Your task to perform on an android device: read, delete, or share a saved page in the chrome app Image 0: 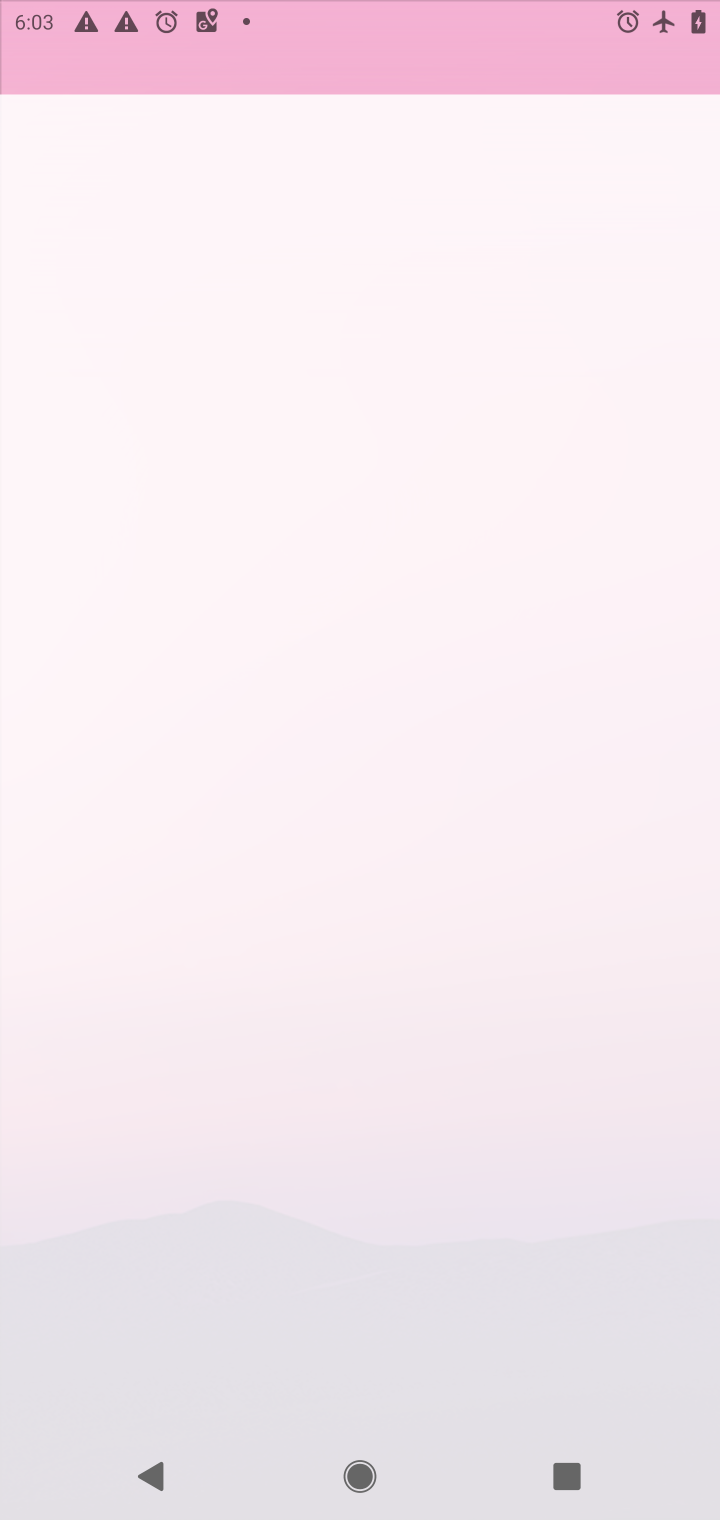
Step 0: press home button
Your task to perform on an android device: read, delete, or share a saved page in the chrome app Image 1: 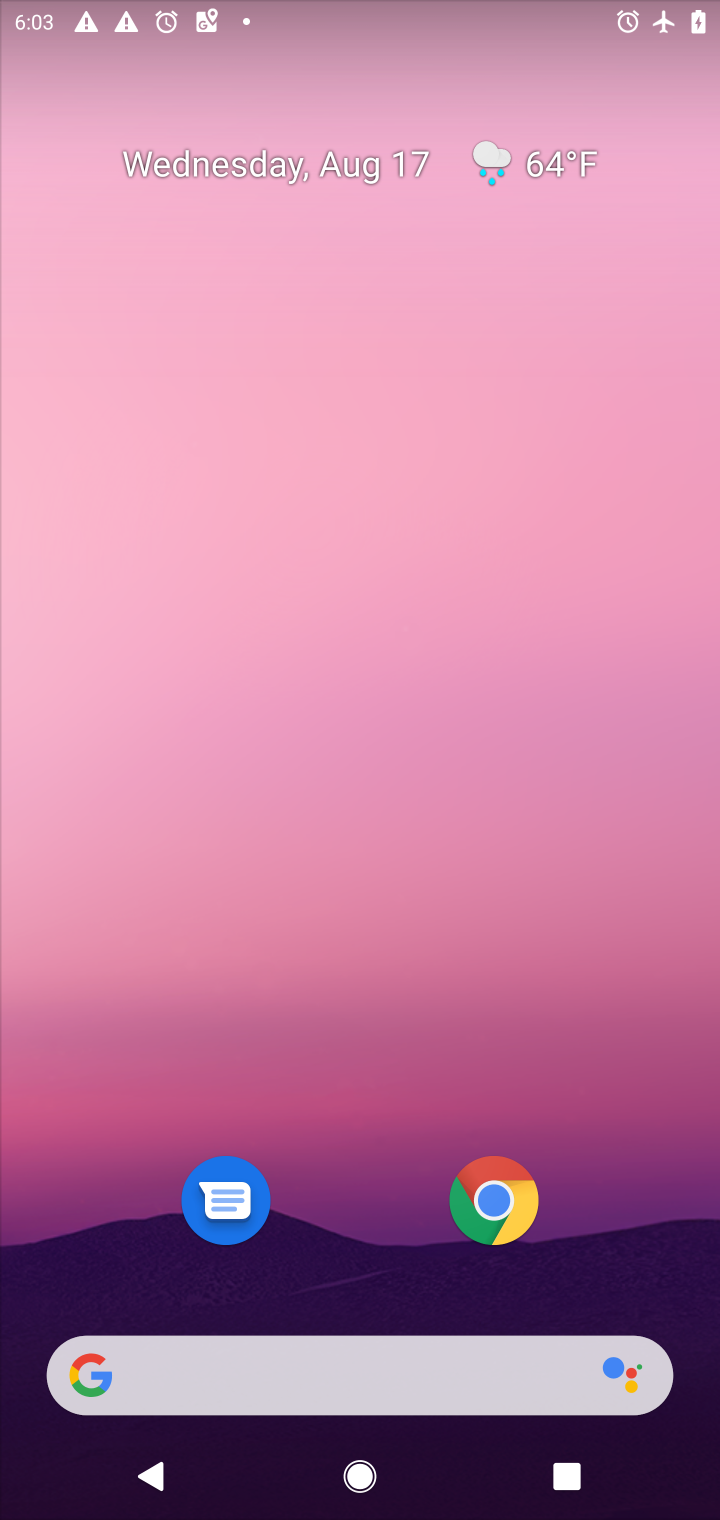
Step 1: drag from (402, 1251) to (380, 204)
Your task to perform on an android device: read, delete, or share a saved page in the chrome app Image 2: 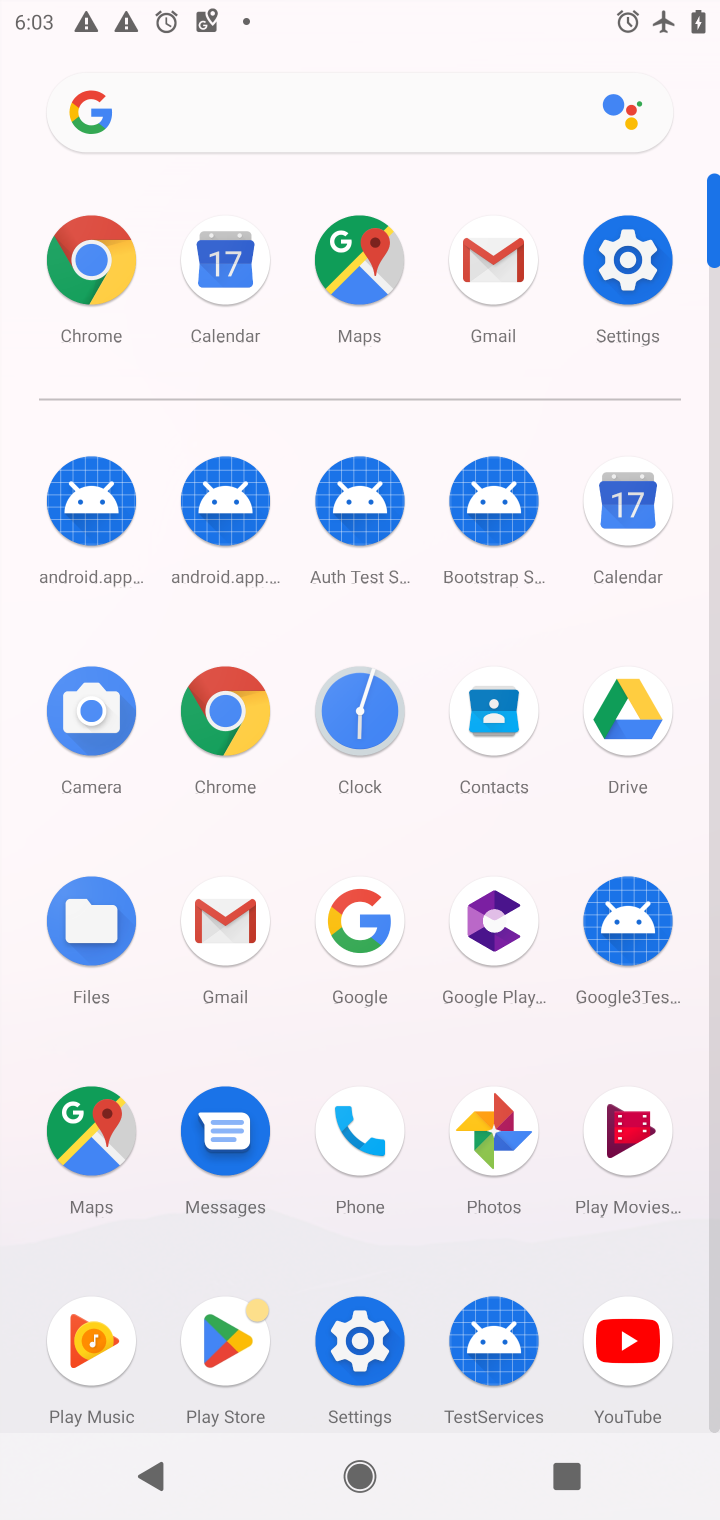
Step 2: click (88, 264)
Your task to perform on an android device: read, delete, or share a saved page in the chrome app Image 3: 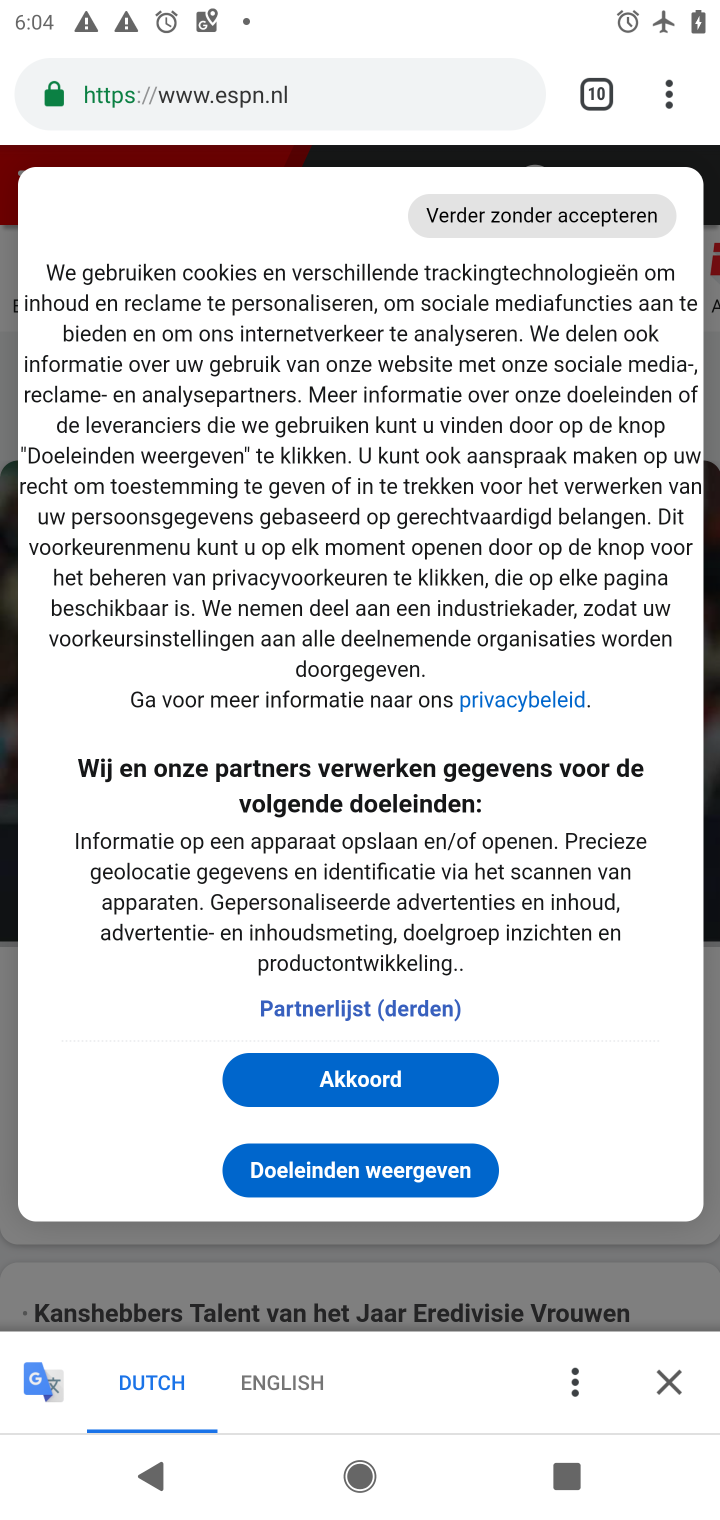
Step 3: drag from (669, 102) to (317, 620)
Your task to perform on an android device: read, delete, or share a saved page in the chrome app Image 4: 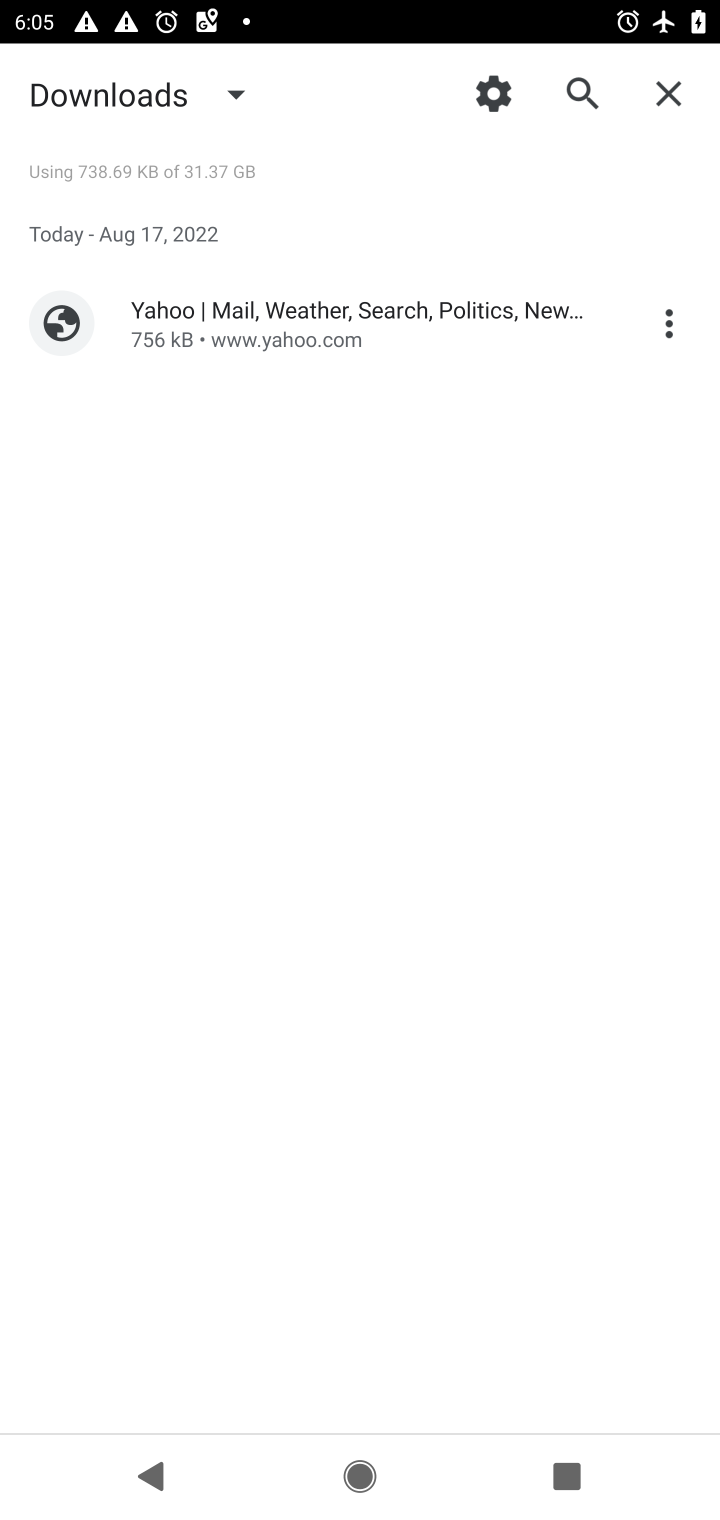
Step 4: click (225, 89)
Your task to perform on an android device: read, delete, or share a saved page in the chrome app Image 5: 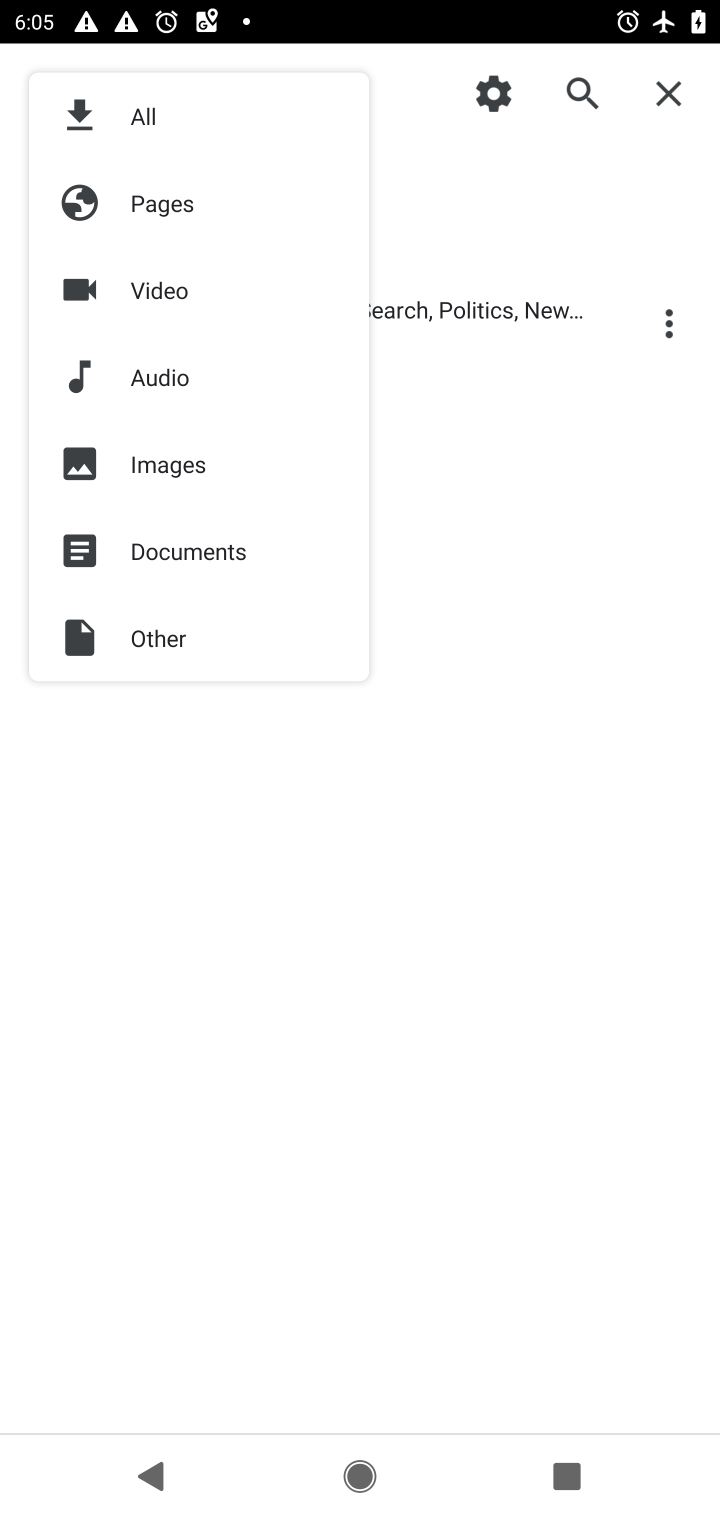
Step 5: click (167, 193)
Your task to perform on an android device: read, delete, or share a saved page in the chrome app Image 6: 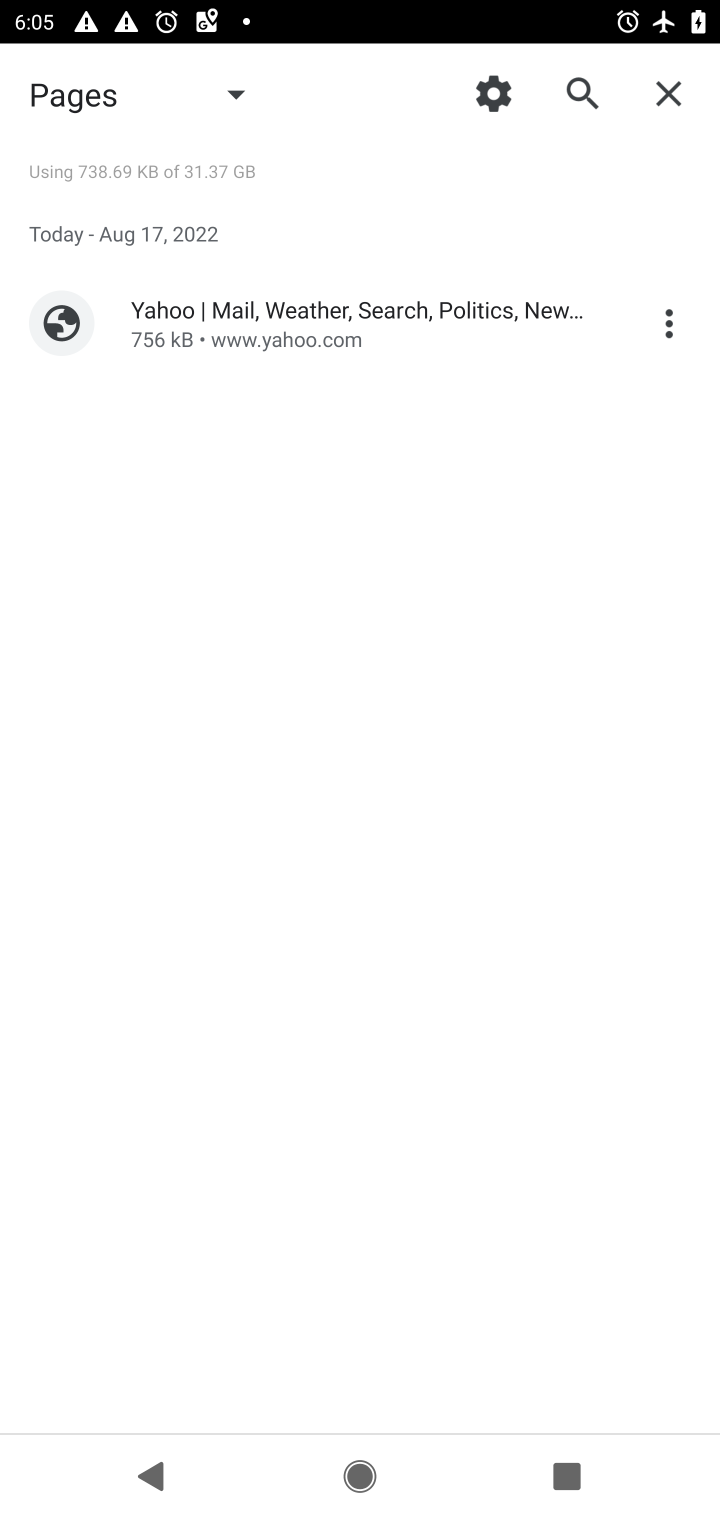
Step 6: task complete